Your task to perform on an android device: turn pop-ups off in chrome Image 0: 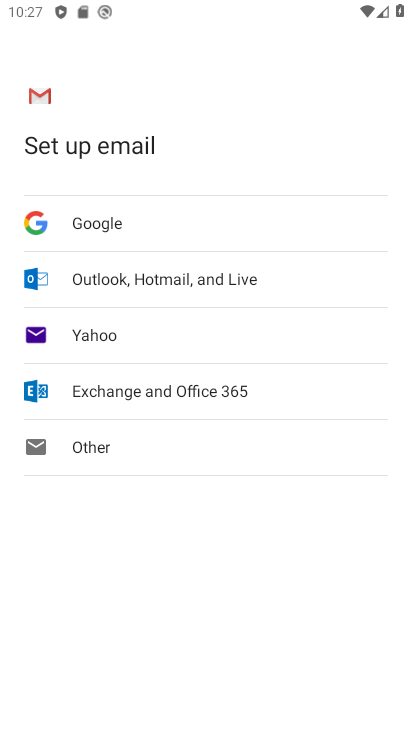
Step 0: press home button
Your task to perform on an android device: turn pop-ups off in chrome Image 1: 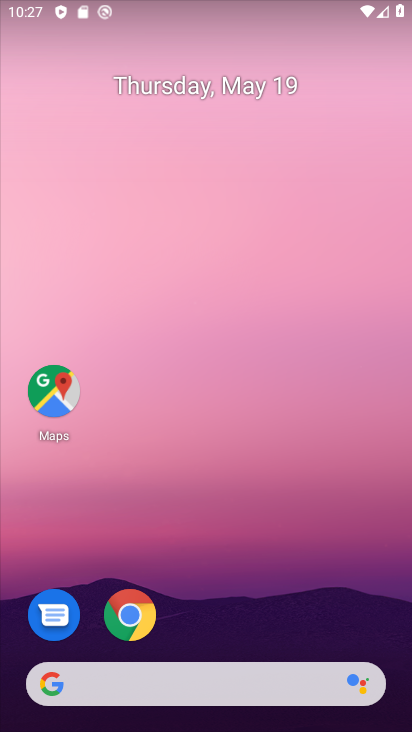
Step 1: click (134, 628)
Your task to perform on an android device: turn pop-ups off in chrome Image 2: 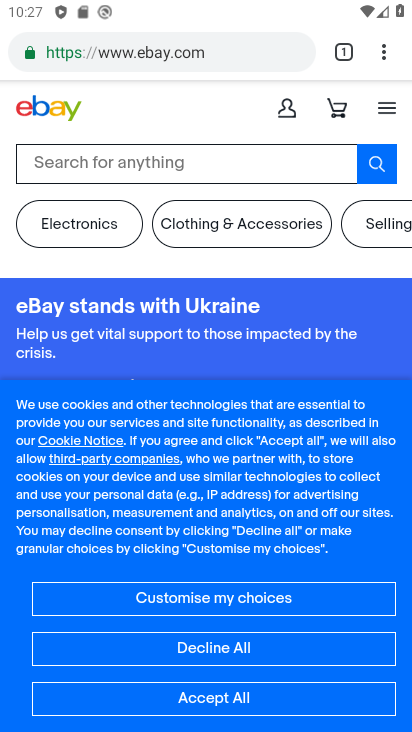
Step 2: click (382, 50)
Your task to perform on an android device: turn pop-ups off in chrome Image 3: 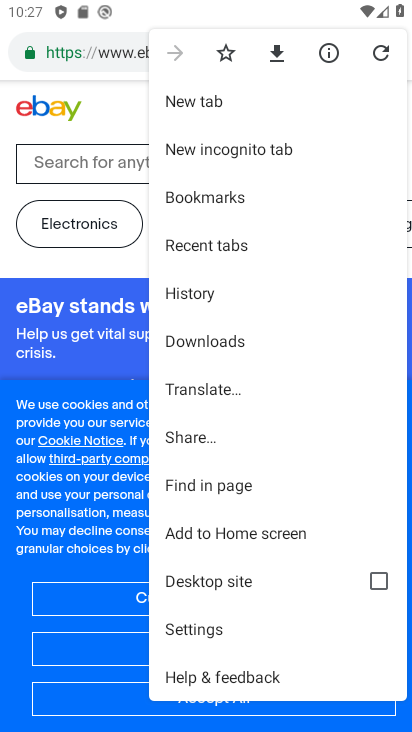
Step 3: click (202, 632)
Your task to perform on an android device: turn pop-ups off in chrome Image 4: 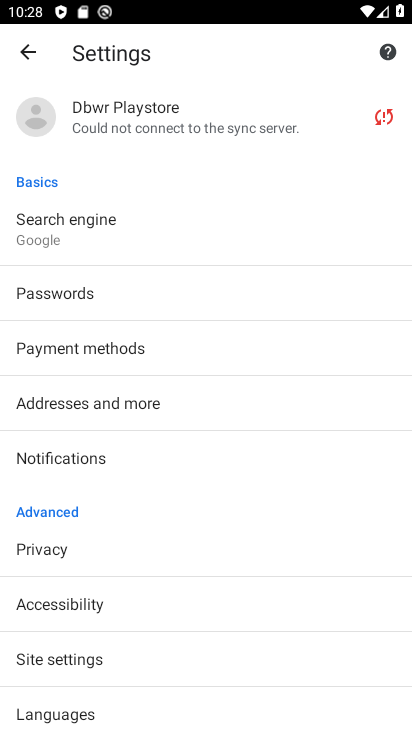
Step 4: click (60, 667)
Your task to perform on an android device: turn pop-ups off in chrome Image 5: 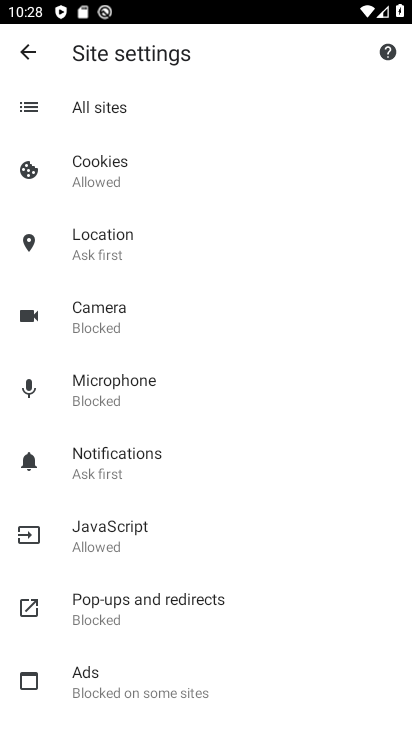
Step 5: click (98, 615)
Your task to perform on an android device: turn pop-ups off in chrome Image 6: 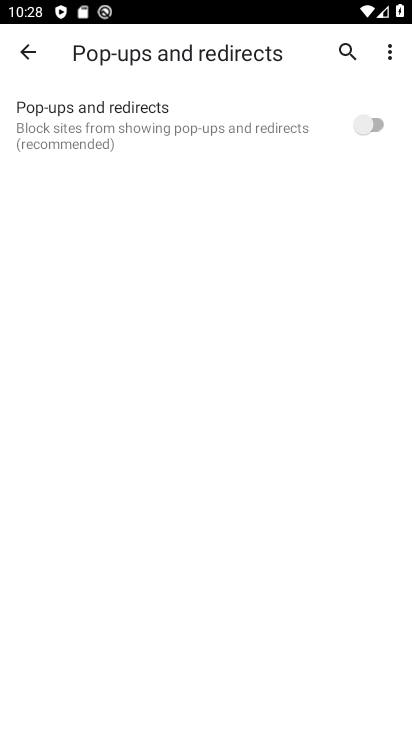
Step 6: task complete